Your task to perform on an android device: change notifications settings Image 0: 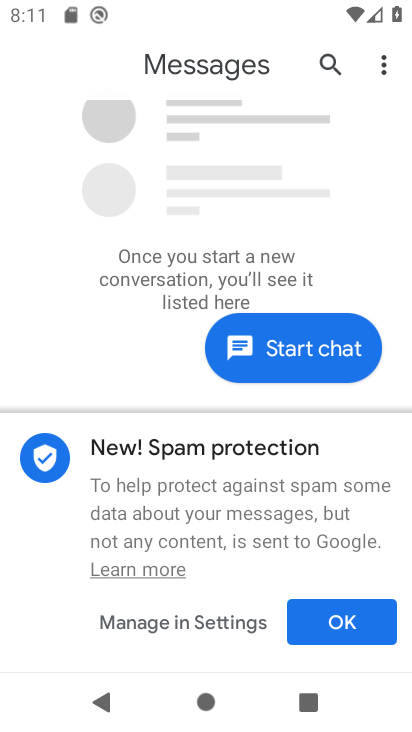
Step 0: press home button
Your task to perform on an android device: change notifications settings Image 1: 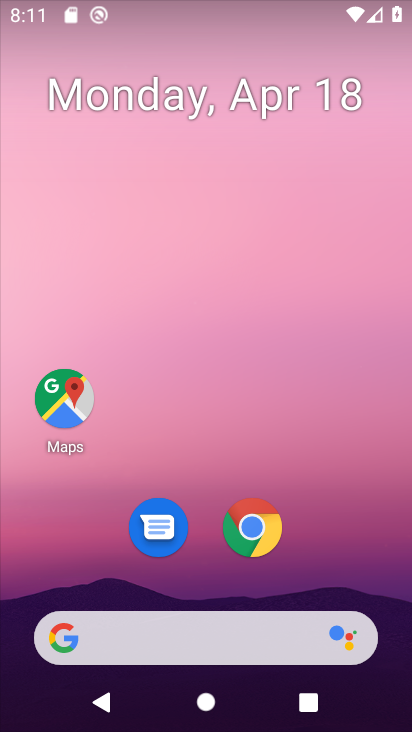
Step 1: drag from (205, 333) to (229, 3)
Your task to perform on an android device: change notifications settings Image 2: 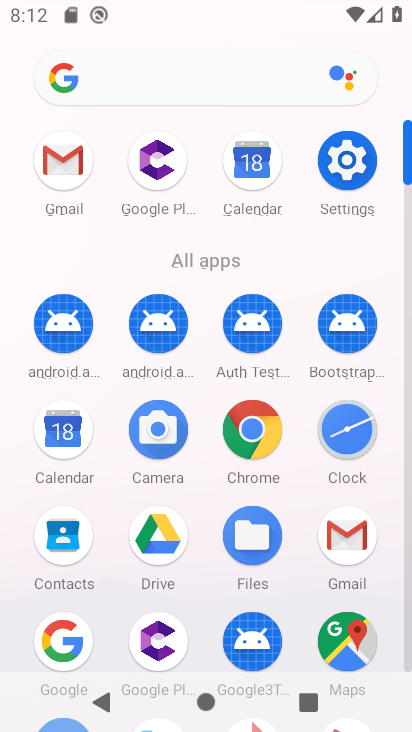
Step 2: click (334, 176)
Your task to perform on an android device: change notifications settings Image 3: 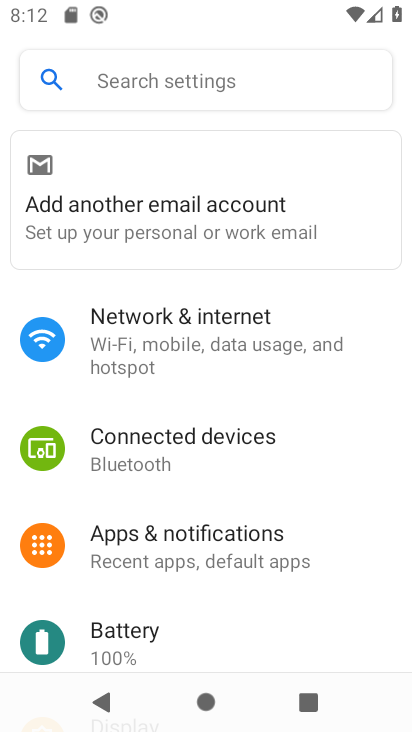
Step 3: click (198, 547)
Your task to perform on an android device: change notifications settings Image 4: 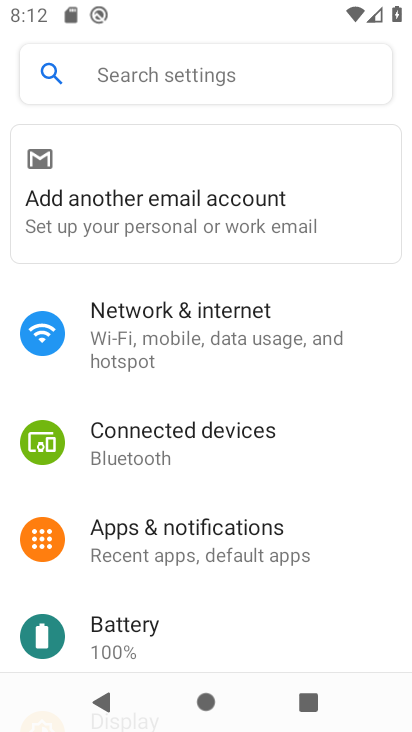
Step 4: click (202, 521)
Your task to perform on an android device: change notifications settings Image 5: 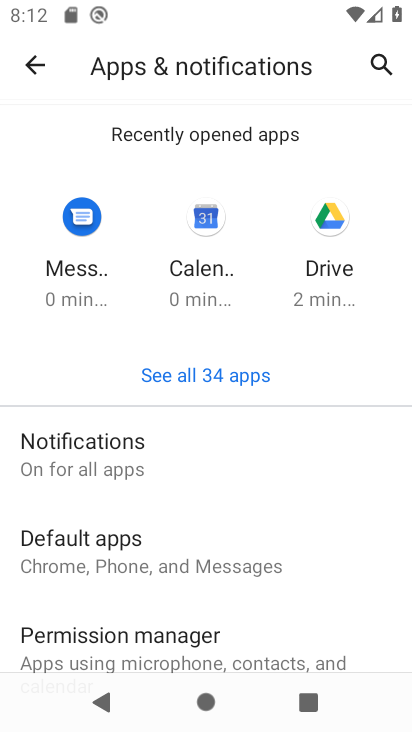
Step 5: drag from (179, 562) to (224, 243)
Your task to perform on an android device: change notifications settings Image 6: 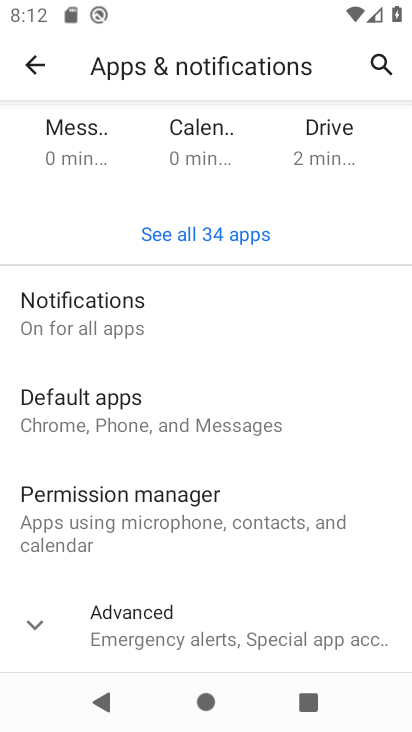
Step 6: click (143, 315)
Your task to perform on an android device: change notifications settings Image 7: 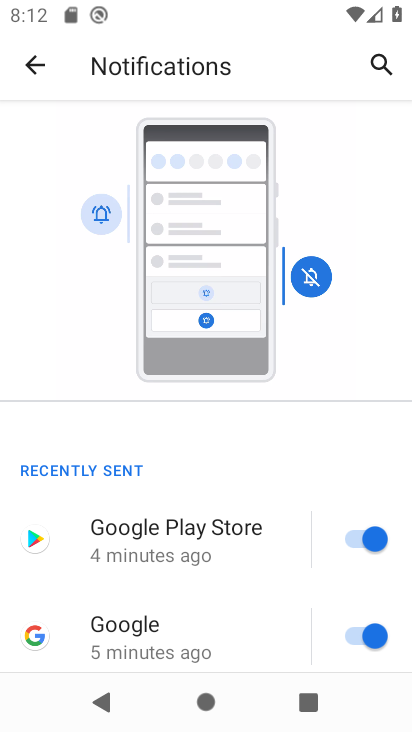
Step 7: drag from (212, 645) to (228, 157)
Your task to perform on an android device: change notifications settings Image 8: 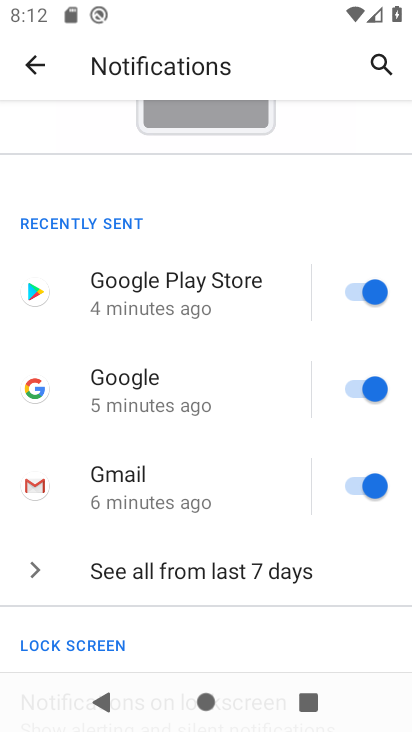
Step 8: drag from (146, 590) to (189, 259)
Your task to perform on an android device: change notifications settings Image 9: 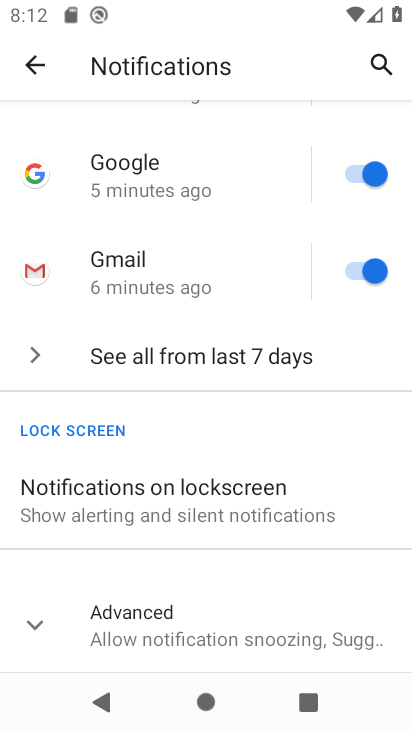
Step 9: click (194, 618)
Your task to perform on an android device: change notifications settings Image 10: 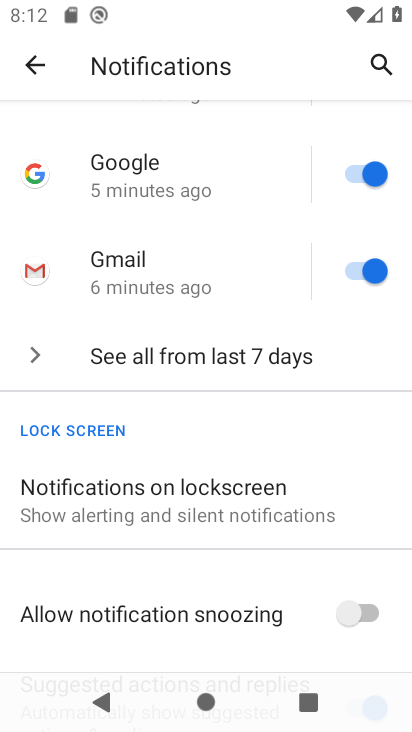
Step 10: click (357, 620)
Your task to perform on an android device: change notifications settings Image 11: 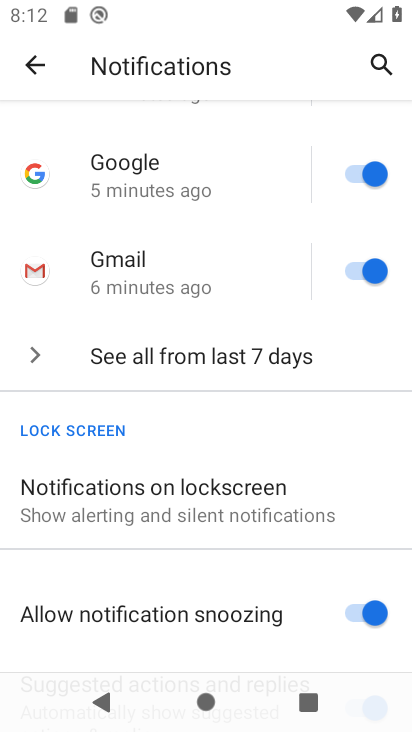
Step 11: task complete